Your task to perform on an android device: move an email to a new category in the gmail app Image 0: 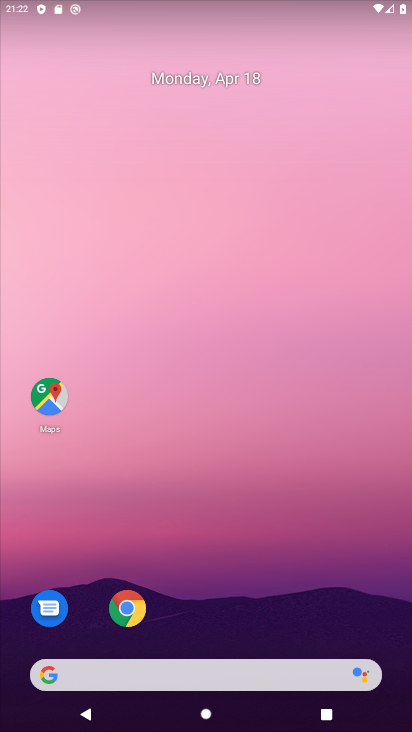
Step 0: drag from (193, 313) to (161, 11)
Your task to perform on an android device: move an email to a new category in the gmail app Image 1: 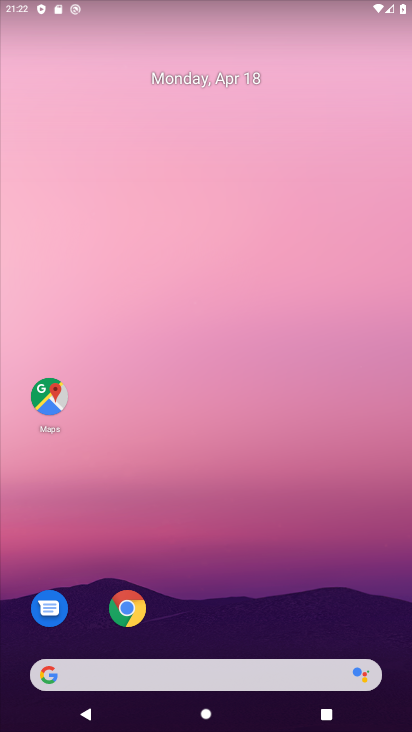
Step 1: drag from (226, 482) to (302, 110)
Your task to perform on an android device: move an email to a new category in the gmail app Image 2: 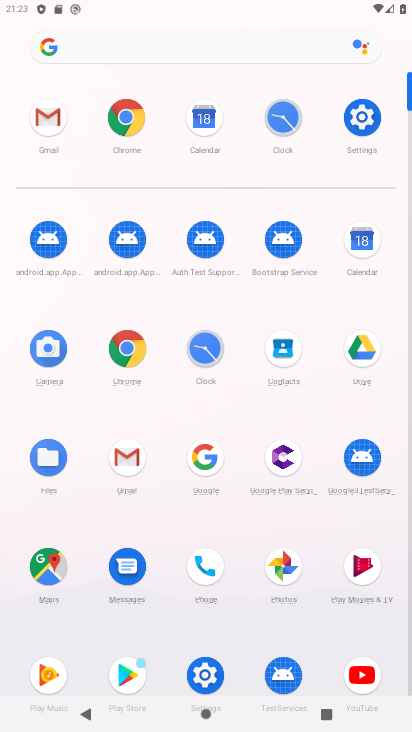
Step 2: click (48, 117)
Your task to perform on an android device: move an email to a new category in the gmail app Image 3: 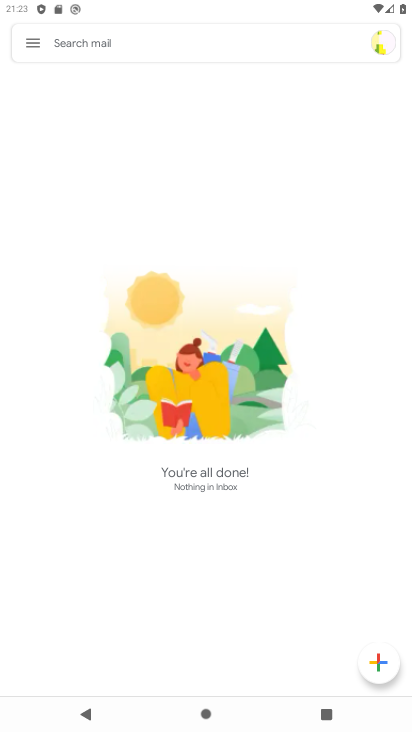
Step 3: task complete